Your task to perform on an android device: add a label to a message in the gmail app Image 0: 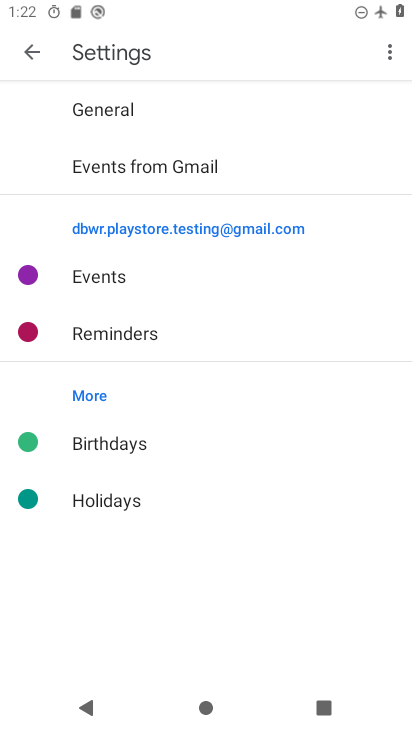
Step 0: press home button
Your task to perform on an android device: add a label to a message in the gmail app Image 1: 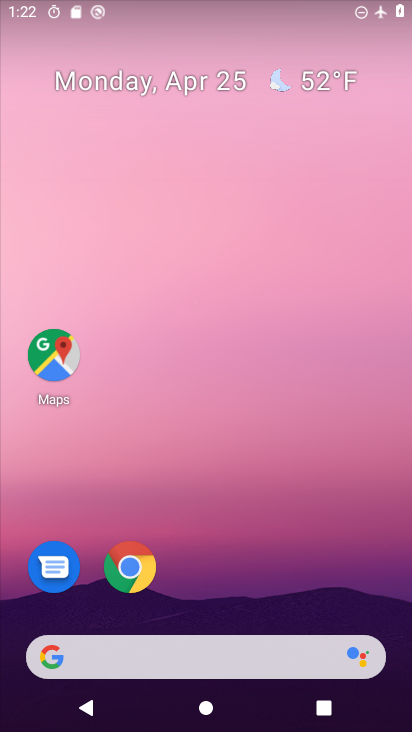
Step 1: drag from (249, 567) to (329, 0)
Your task to perform on an android device: add a label to a message in the gmail app Image 2: 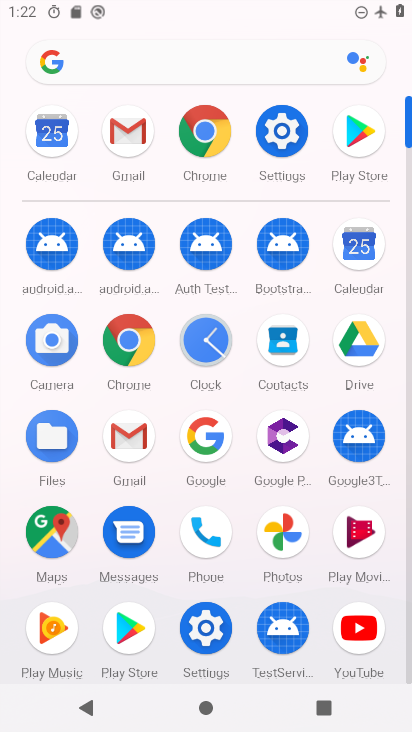
Step 2: click (126, 128)
Your task to perform on an android device: add a label to a message in the gmail app Image 3: 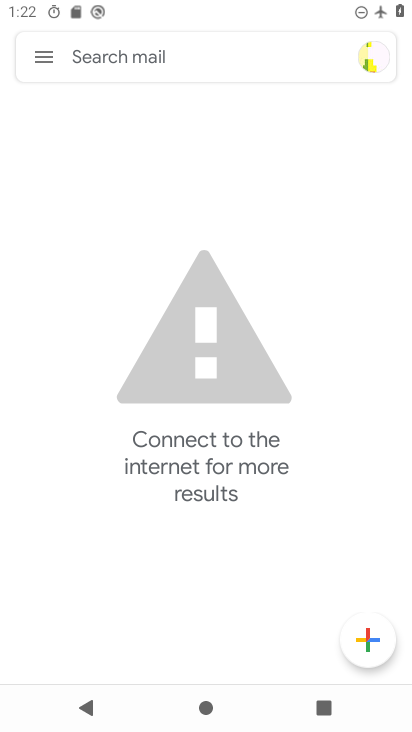
Step 3: task complete